Your task to perform on an android device: change alarm snooze length Image 0: 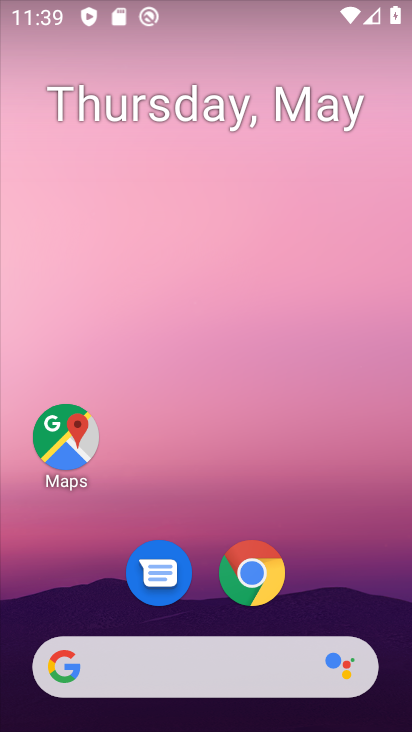
Step 0: drag from (382, 607) to (265, 49)
Your task to perform on an android device: change alarm snooze length Image 1: 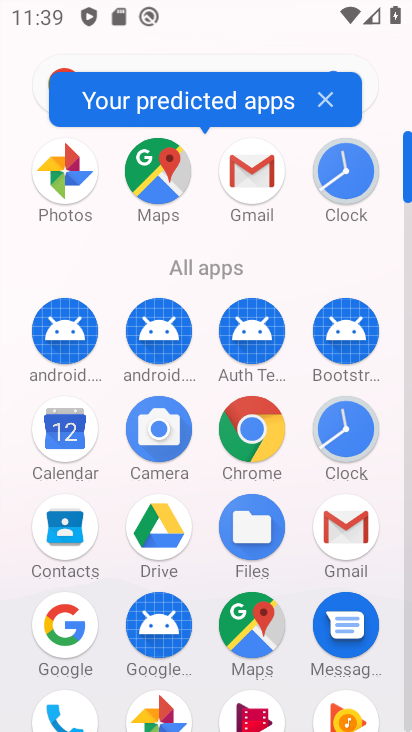
Step 1: click (350, 427)
Your task to perform on an android device: change alarm snooze length Image 2: 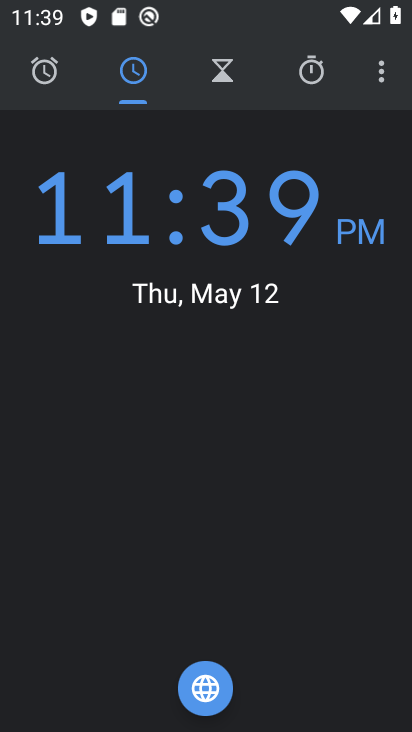
Step 2: click (381, 60)
Your task to perform on an android device: change alarm snooze length Image 3: 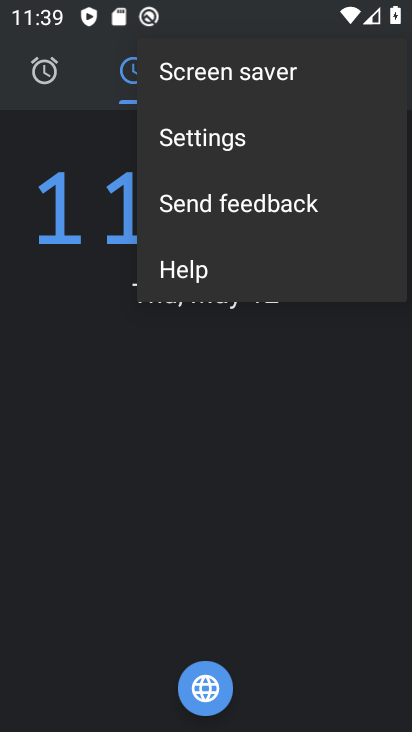
Step 3: click (249, 129)
Your task to perform on an android device: change alarm snooze length Image 4: 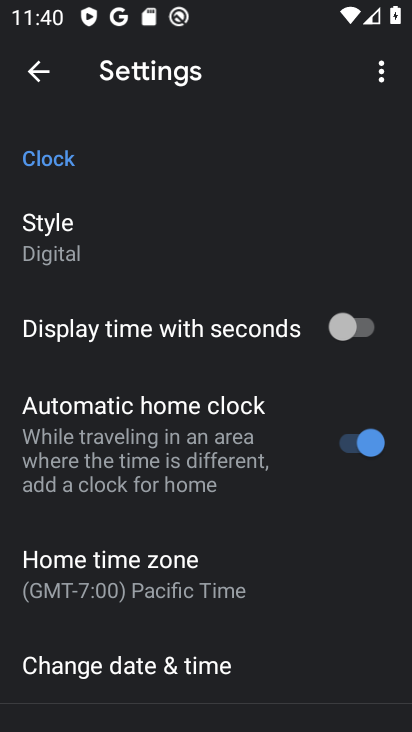
Step 4: drag from (168, 617) to (179, 66)
Your task to perform on an android device: change alarm snooze length Image 5: 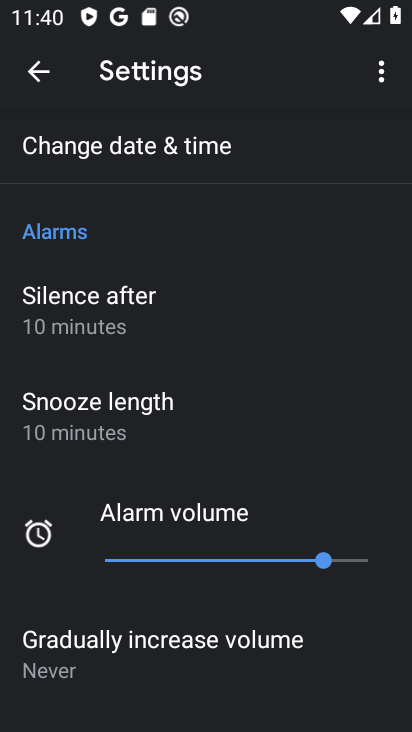
Step 5: click (140, 388)
Your task to perform on an android device: change alarm snooze length Image 6: 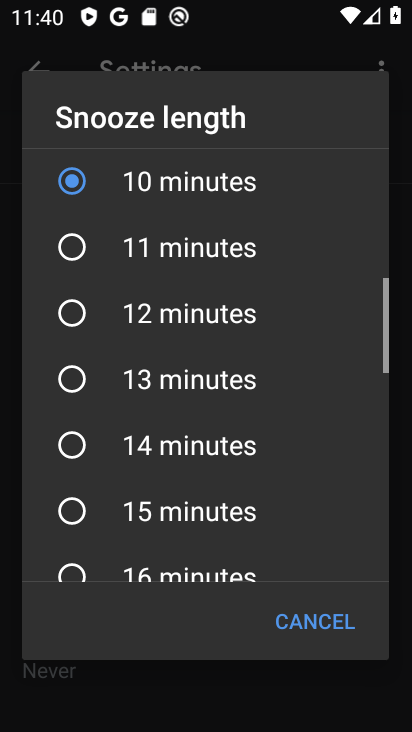
Step 6: click (185, 374)
Your task to perform on an android device: change alarm snooze length Image 7: 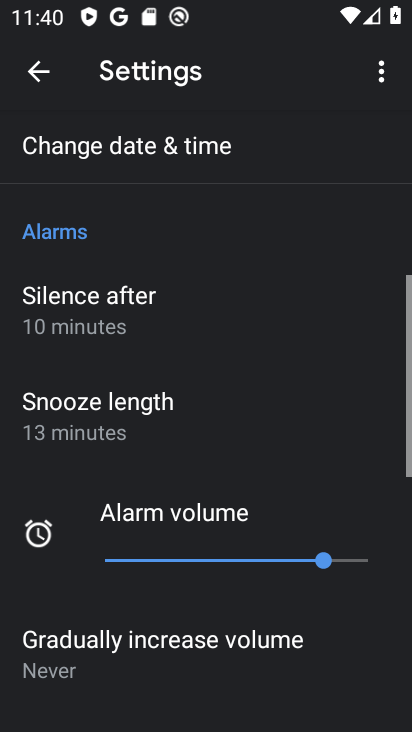
Step 7: task complete